Your task to perform on an android device: delete browsing data in the chrome app Image 0: 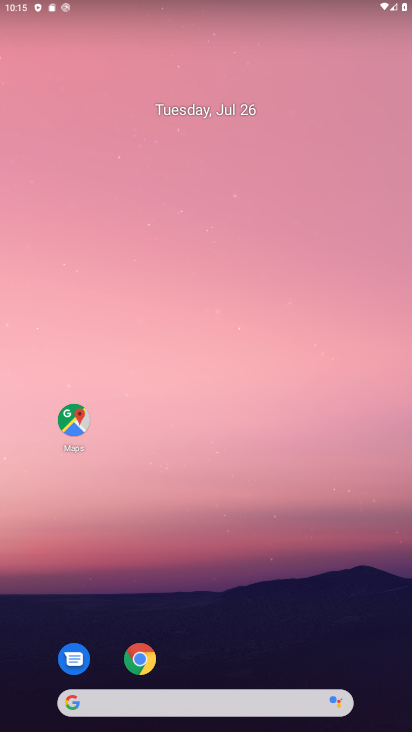
Step 0: press home button
Your task to perform on an android device: delete browsing data in the chrome app Image 1: 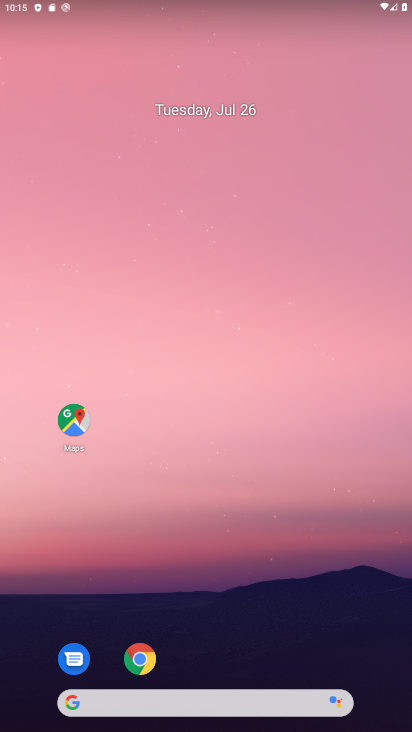
Step 1: drag from (194, 726) to (319, 120)
Your task to perform on an android device: delete browsing data in the chrome app Image 2: 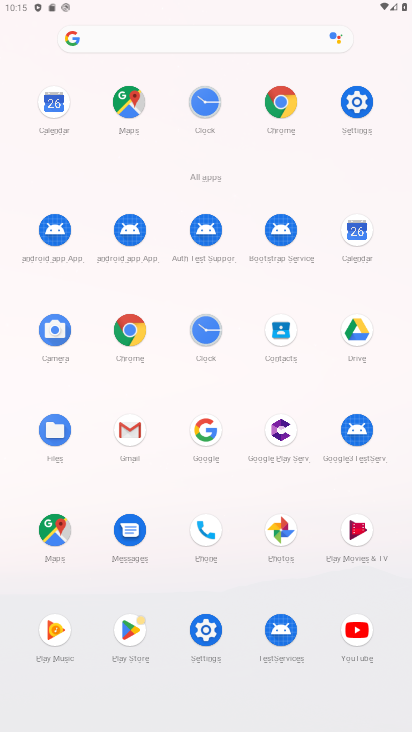
Step 2: click (130, 356)
Your task to perform on an android device: delete browsing data in the chrome app Image 3: 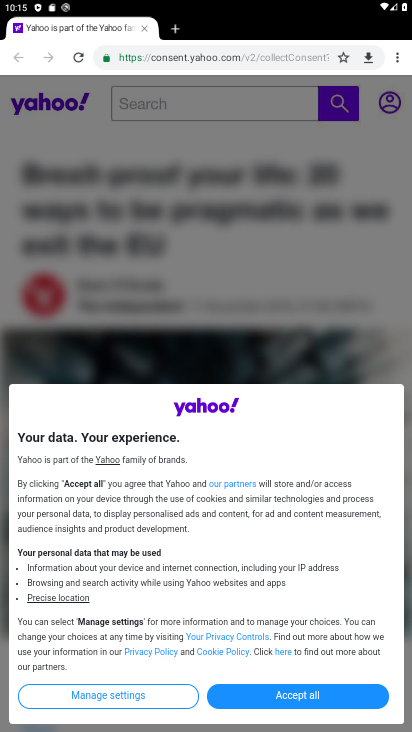
Step 3: drag from (406, 51) to (281, 381)
Your task to perform on an android device: delete browsing data in the chrome app Image 4: 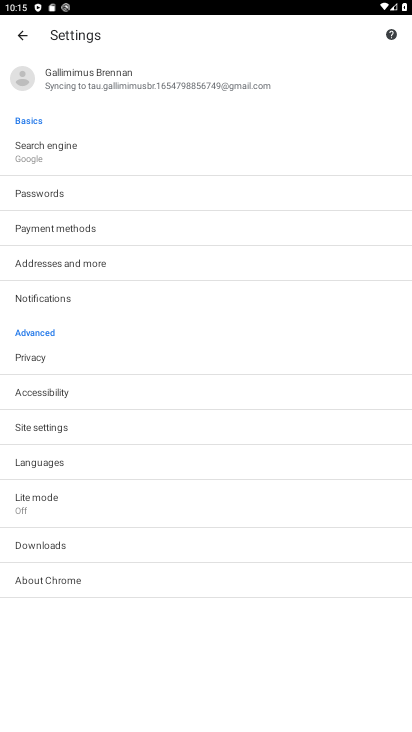
Step 4: click (45, 353)
Your task to perform on an android device: delete browsing data in the chrome app Image 5: 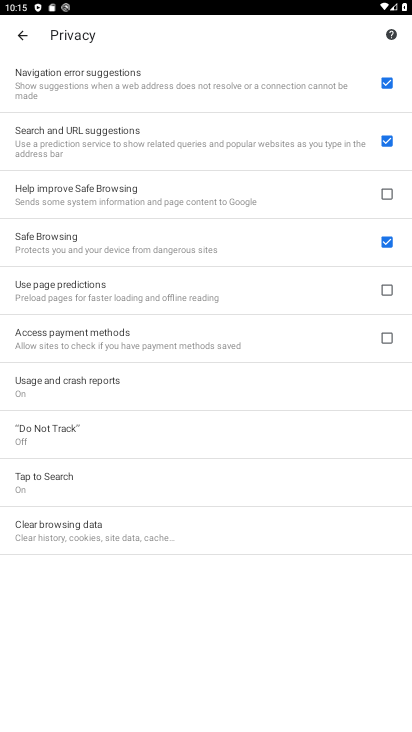
Step 5: click (37, 524)
Your task to perform on an android device: delete browsing data in the chrome app Image 6: 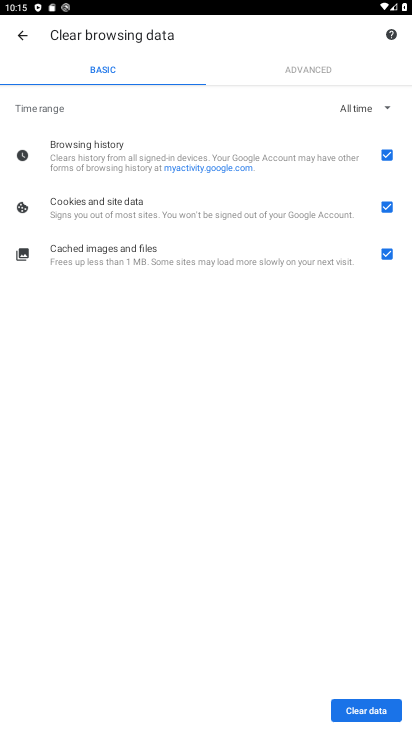
Step 6: click (369, 707)
Your task to perform on an android device: delete browsing data in the chrome app Image 7: 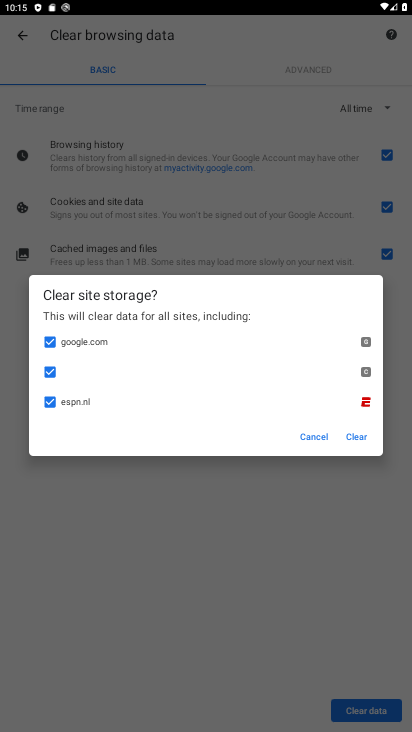
Step 7: click (365, 442)
Your task to perform on an android device: delete browsing data in the chrome app Image 8: 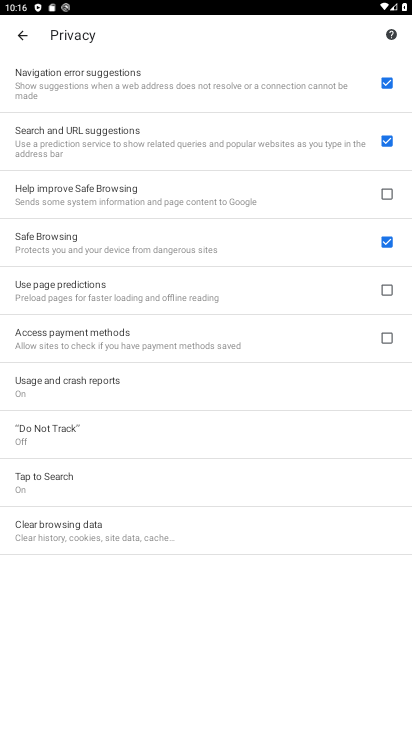
Step 8: task complete